Your task to perform on an android device: toggle javascript in the chrome app Image 0: 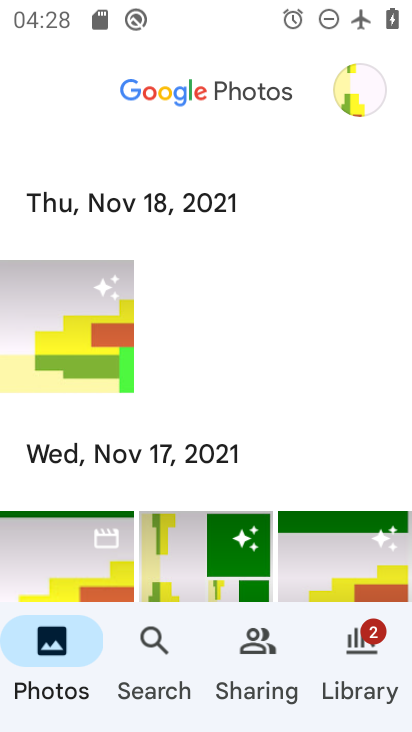
Step 0: press home button
Your task to perform on an android device: toggle javascript in the chrome app Image 1: 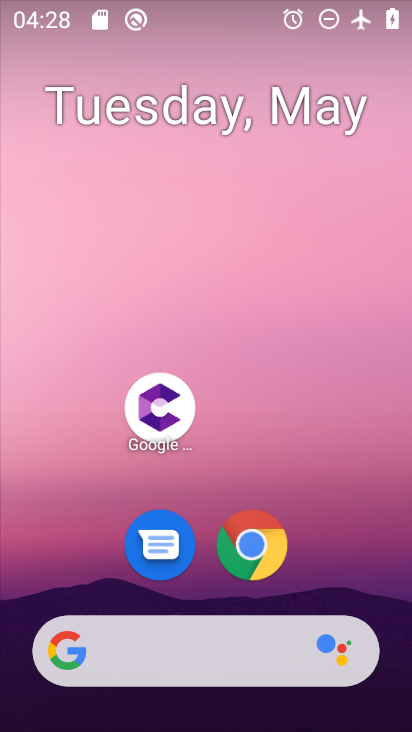
Step 1: drag from (365, 578) to (363, 183)
Your task to perform on an android device: toggle javascript in the chrome app Image 2: 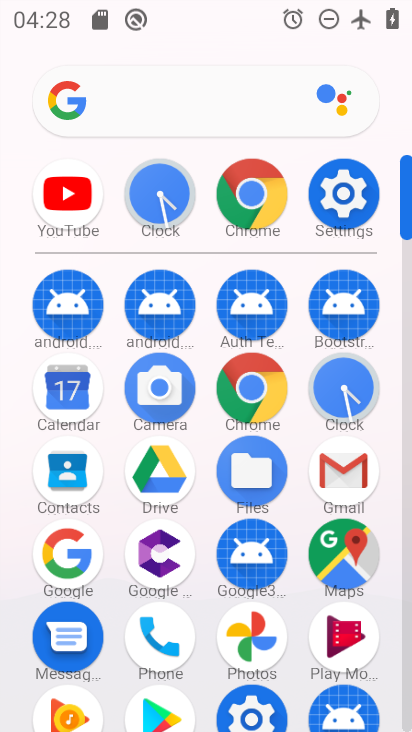
Step 2: click (261, 391)
Your task to perform on an android device: toggle javascript in the chrome app Image 3: 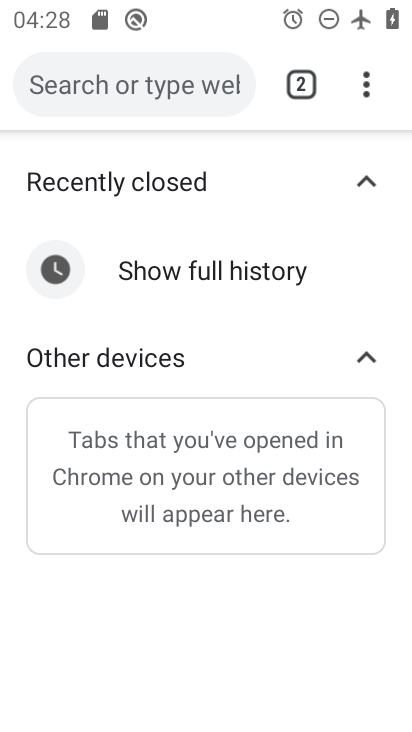
Step 3: click (368, 101)
Your task to perform on an android device: toggle javascript in the chrome app Image 4: 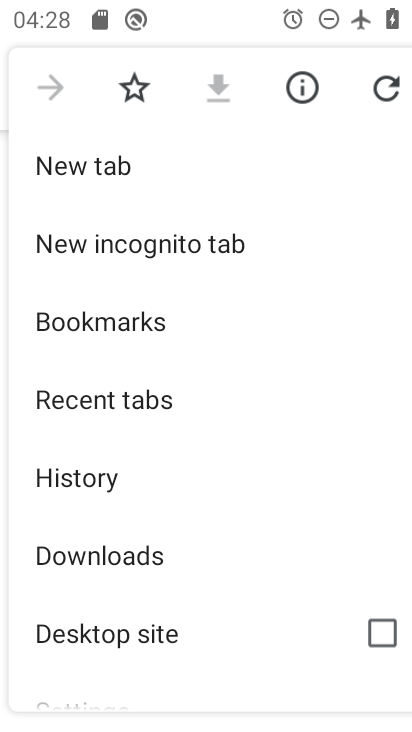
Step 4: drag from (315, 501) to (313, 403)
Your task to perform on an android device: toggle javascript in the chrome app Image 5: 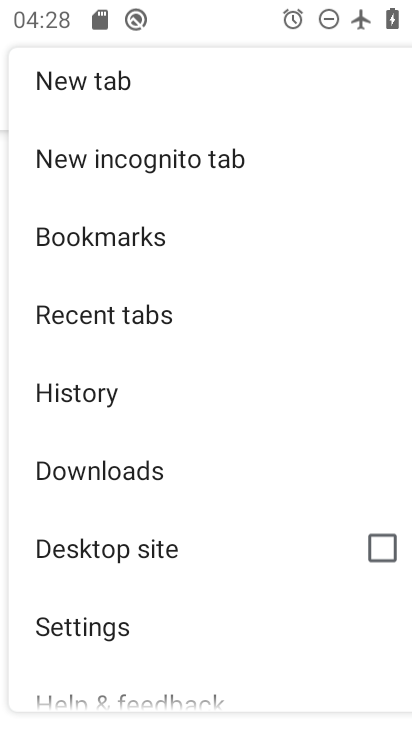
Step 5: drag from (288, 574) to (292, 459)
Your task to perform on an android device: toggle javascript in the chrome app Image 6: 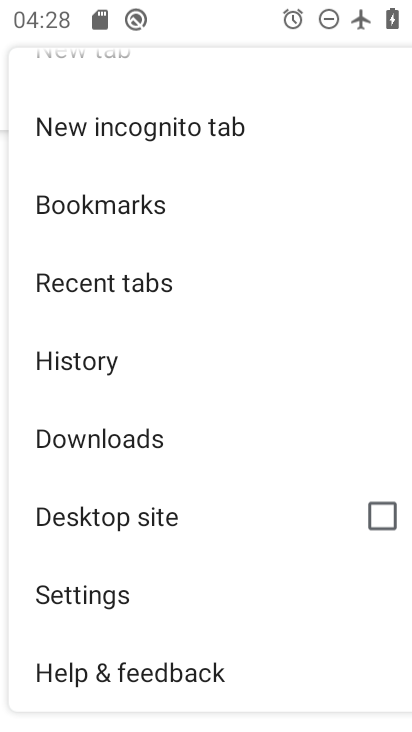
Step 6: click (100, 606)
Your task to perform on an android device: toggle javascript in the chrome app Image 7: 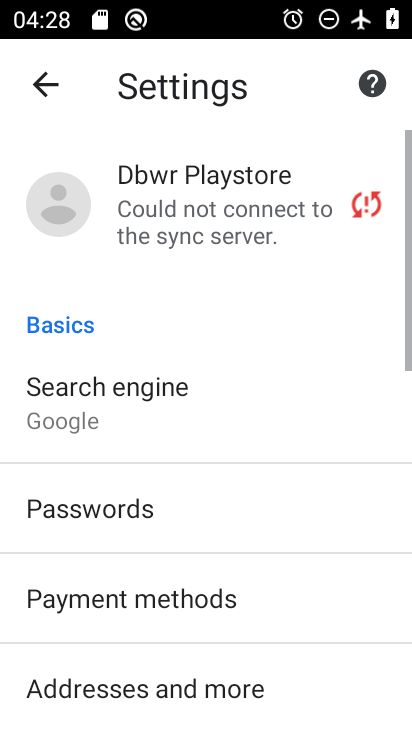
Step 7: drag from (281, 598) to (293, 483)
Your task to perform on an android device: toggle javascript in the chrome app Image 8: 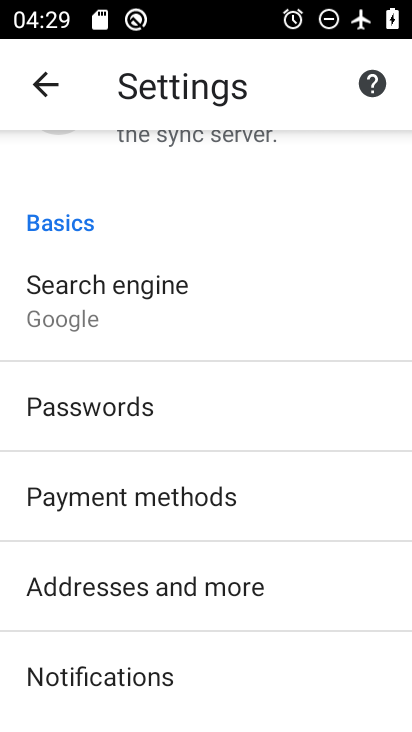
Step 8: drag from (300, 614) to (300, 557)
Your task to perform on an android device: toggle javascript in the chrome app Image 9: 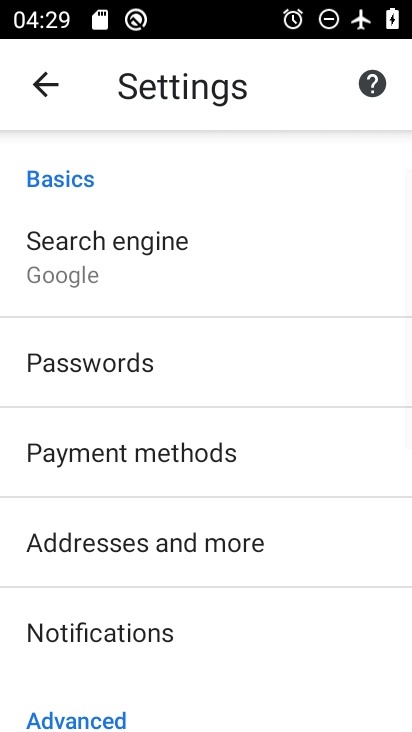
Step 9: drag from (298, 631) to (295, 570)
Your task to perform on an android device: toggle javascript in the chrome app Image 10: 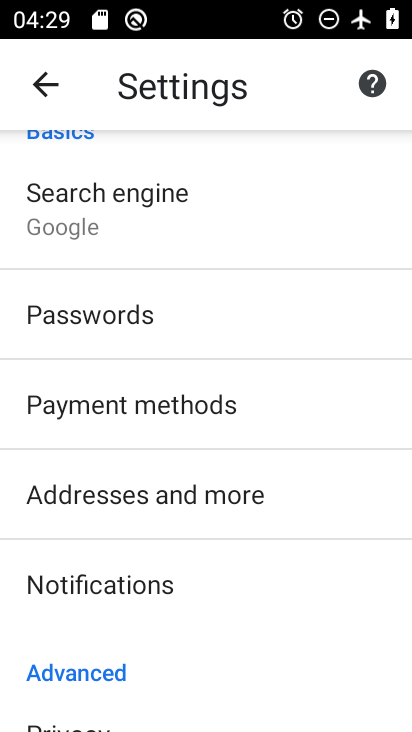
Step 10: drag from (307, 633) to (316, 547)
Your task to perform on an android device: toggle javascript in the chrome app Image 11: 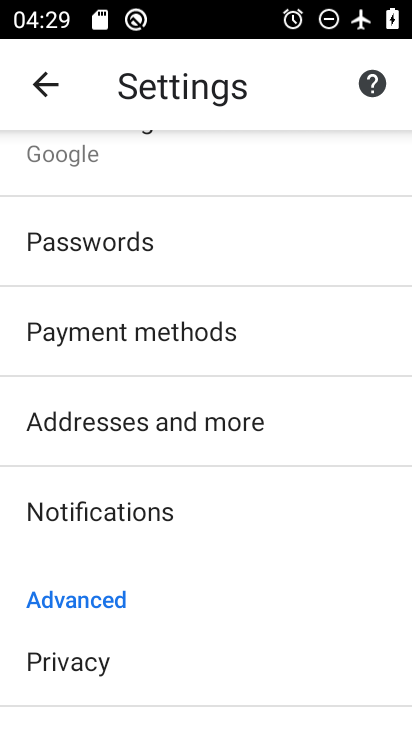
Step 11: drag from (306, 657) to (305, 563)
Your task to perform on an android device: toggle javascript in the chrome app Image 12: 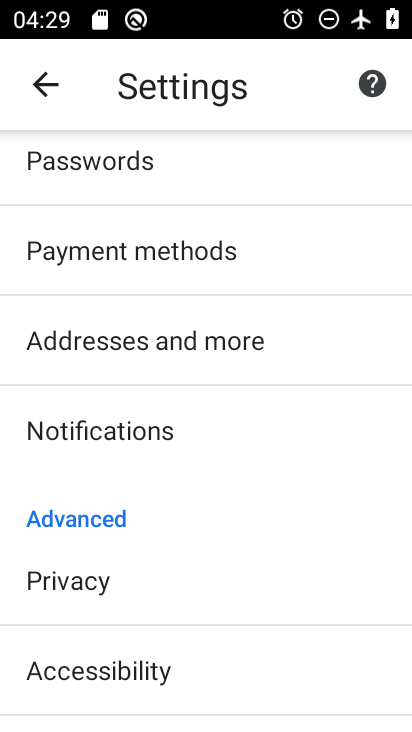
Step 12: drag from (302, 670) to (302, 576)
Your task to perform on an android device: toggle javascript in the chrome app Image 13: 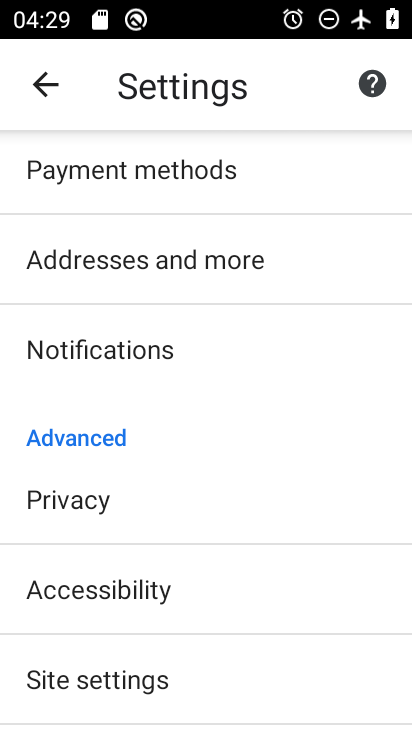
Step 13: drag from (300, 663) to (302, 560)
Your task to perform on an android device: toggle javascript in the chrome app Image 14: 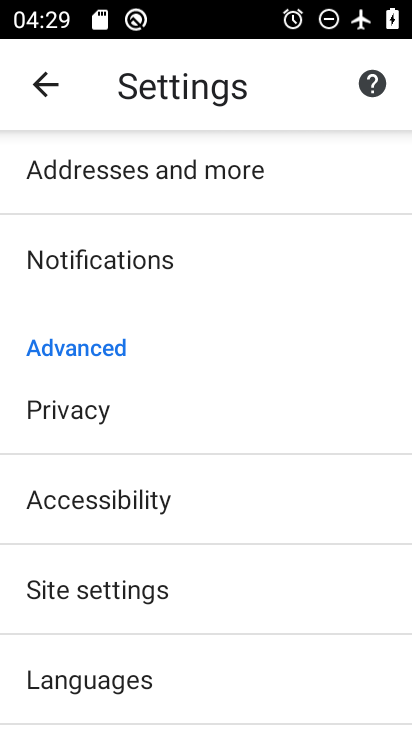
Step 14: drag from (295, 663) to (301, 580)
Your task to perform on an android device: toggle javascript in the chrome app Image 15: 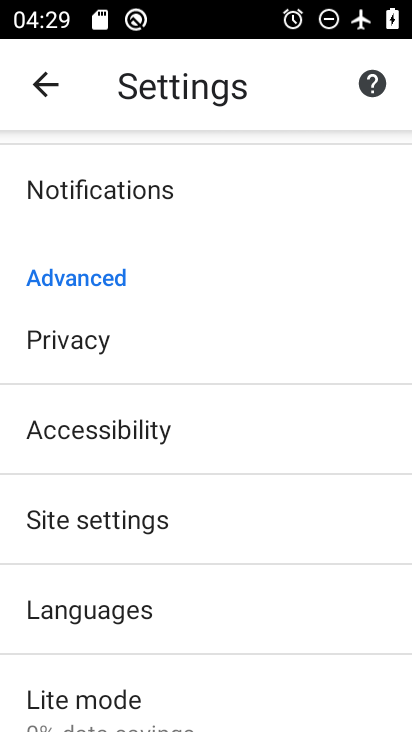
Step 15: drag from (298, 672) to (298, 589)
Your task to perform on an android device: toggle javascript in the chrome app Image 16: 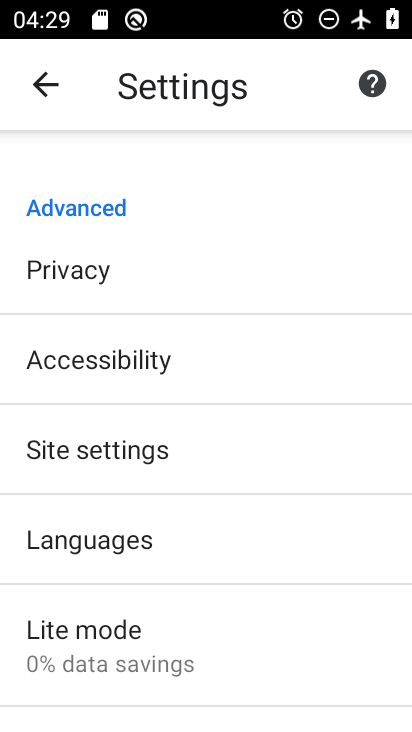
Step 16: drag from (288, 687) to (285, 596)
Your task to perform on an android device: toggle javascript in the chrome app Image 17: 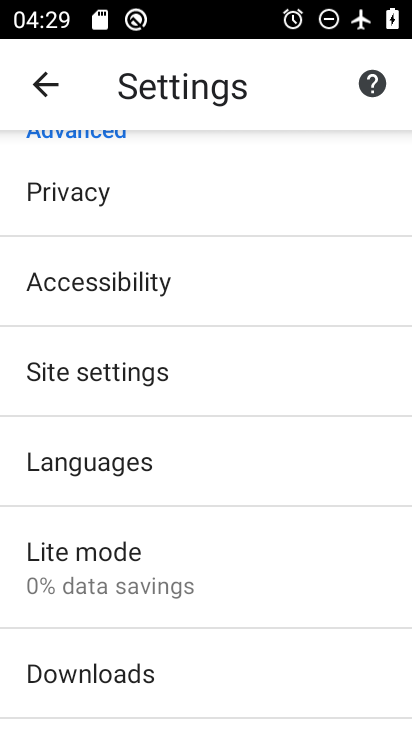
Step 17: click (250, 387)
Your task to perform on an android device: toggle javascript in the chrome app Image 18: 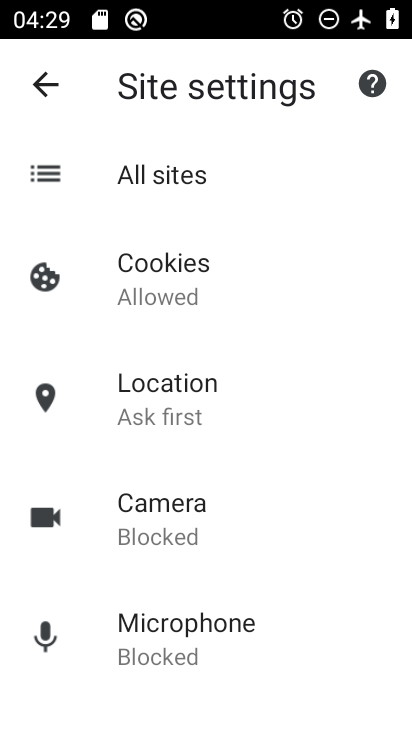
Step 18: drag from (305, 565) to (306, 474)
Your task to perform on an android device: toggle javascript in the chrome app Image 19: 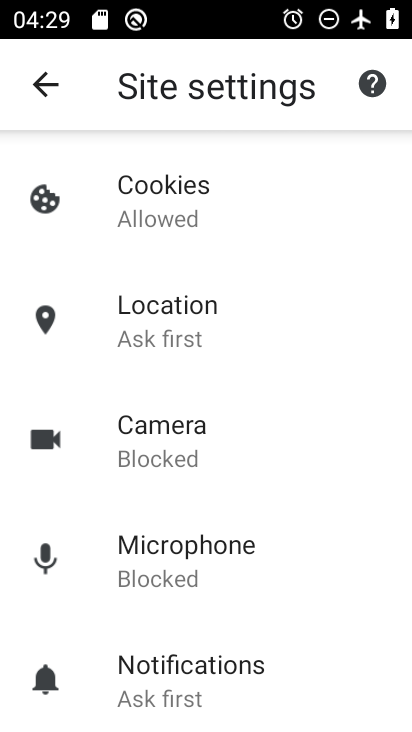
Step 19: drag from (316, 566) to (316, 490)
Your task to perform on an android device: toggle javascript in the chrome app Image 20: 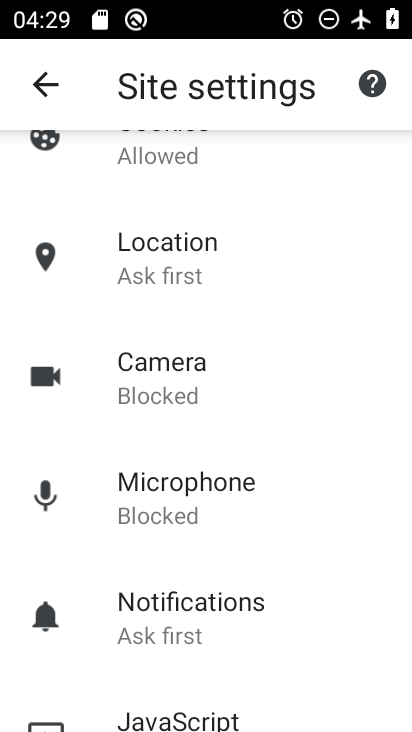
Step 20: drag from (319, 598) to (323, 501)
Your task to perform on an android device: toggle javascript in the chrome app Image 21: 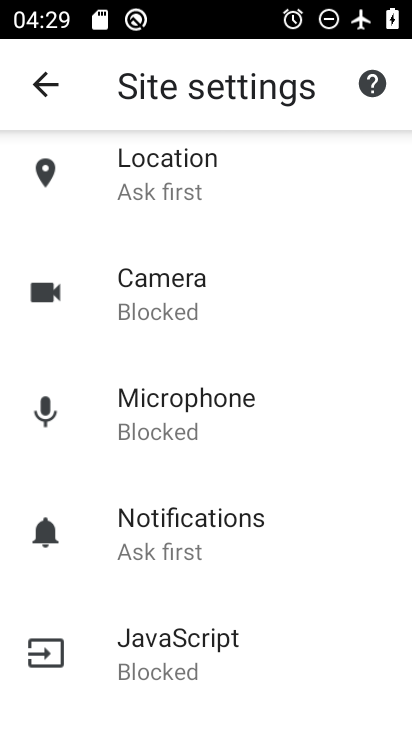
Step 21: drag from (327, 612) to (328, 543)
Your task to perform on an android device: toggle javascript in the chrome app Image 22: 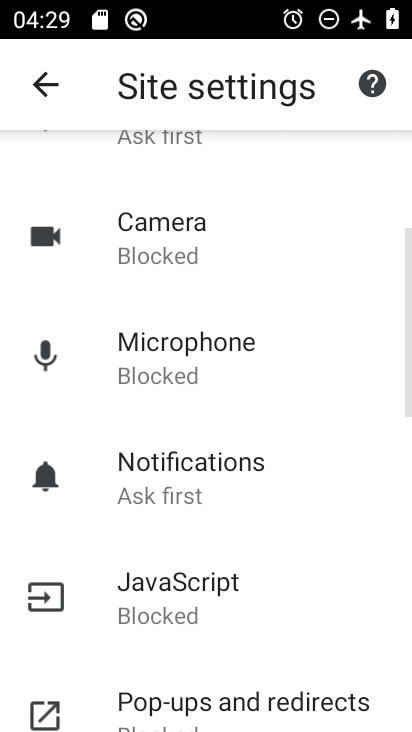
Step 22: drag from (322, 629) to (323, 520)
Your task to perform on an android device: toggle javascript in the chrome app Image 23: 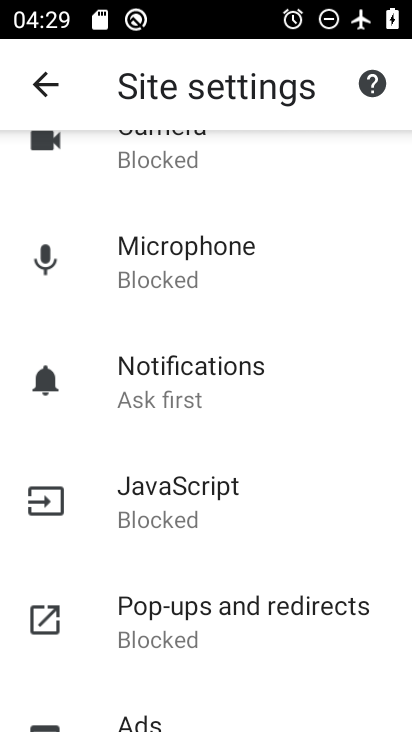
Step 23: drag from (319, 663) to (317, 572)
Your task to perform on an android device: toggle javascript in the chrome app Image 24: 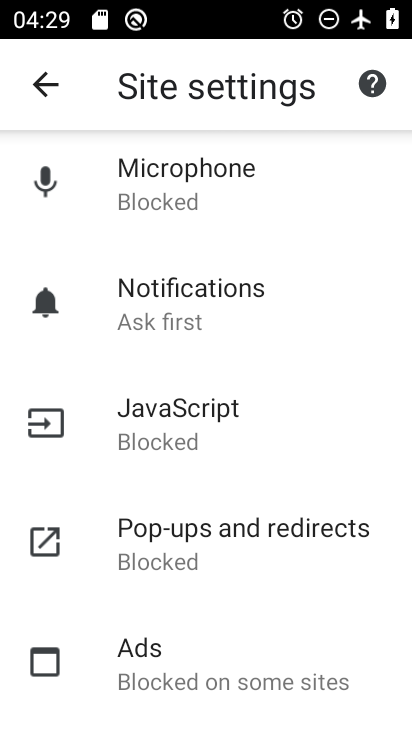
Step 24: click (198, 449)
Your task to perform on an android device: toggle javascript in the chrome app Image 25: 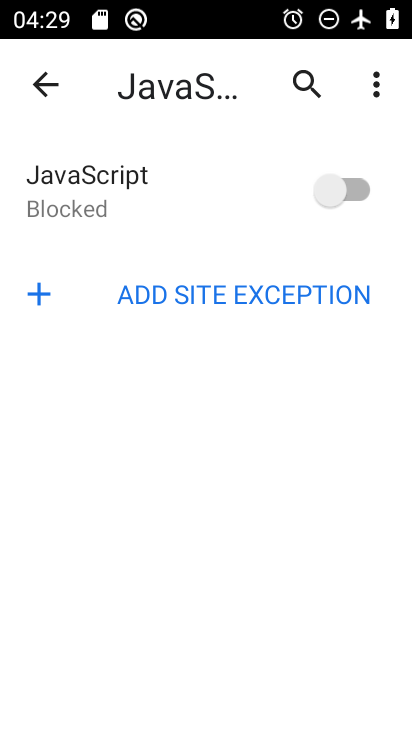
Step 25: click (321, 204)
Your task to perform on an android device: toggle javascript in the chrome app Image 26: 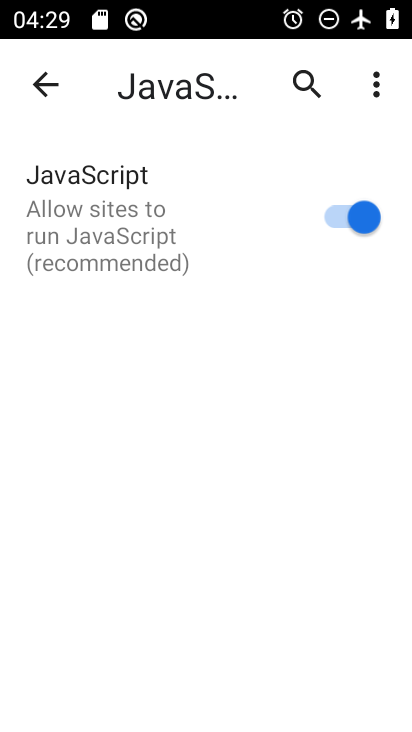
Step 26: task complete